Your task to perform on an android device: turn notification dots on Image 0: 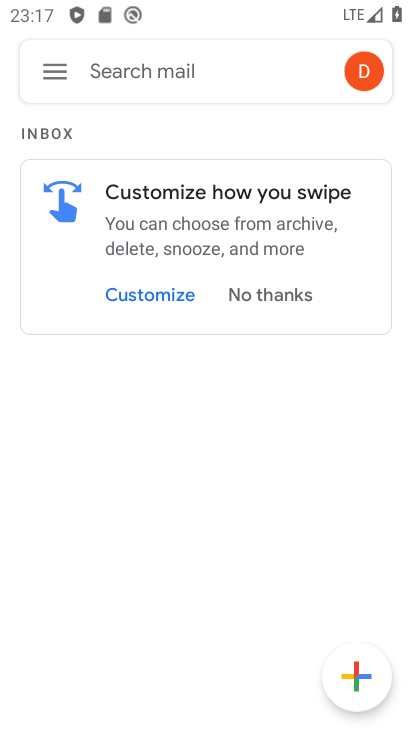
Step 0: press home button
Your task to perform on an android device: turn notification dots on Image 1: 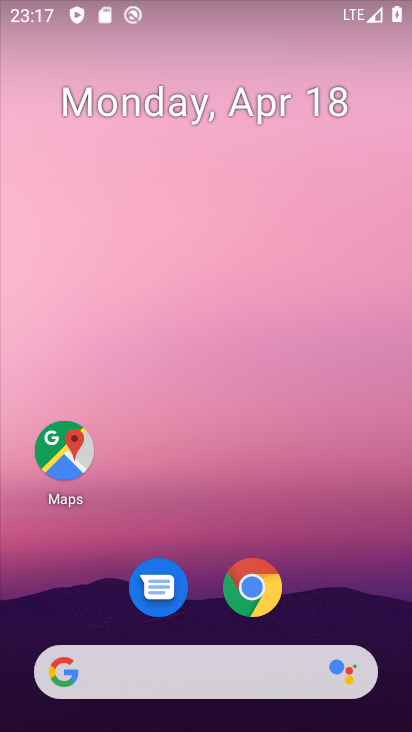
Step 1: drag from (346, 328) to (333, 146)
Your task to perform on an android device: turn notification dots on Image 2: 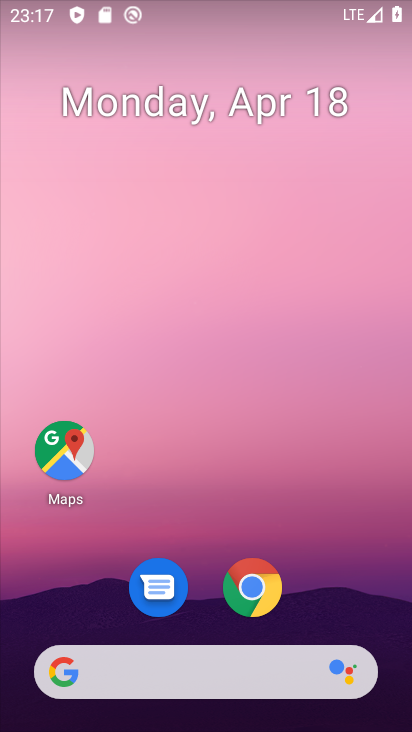
Step 2: drag from (321, 394) to (341, 155)
Your task to perform on an android device: turn notification dots on Image 3: 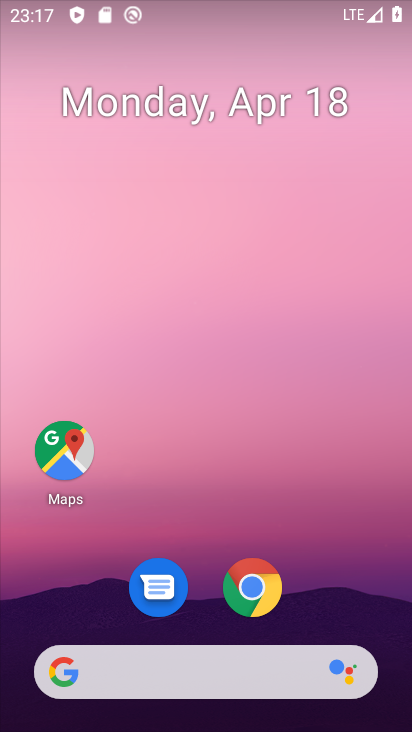
Step 3: drag from (369, 599) to (401, 110)
Your task to perform on an android device: turn notification dots on Image 4: 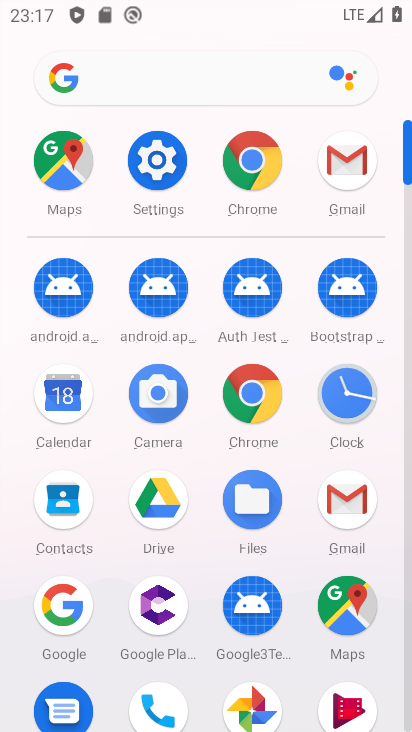
Step 4: click (150, 167)
Your task to perform on an android device: turn notification dots on Image 5: 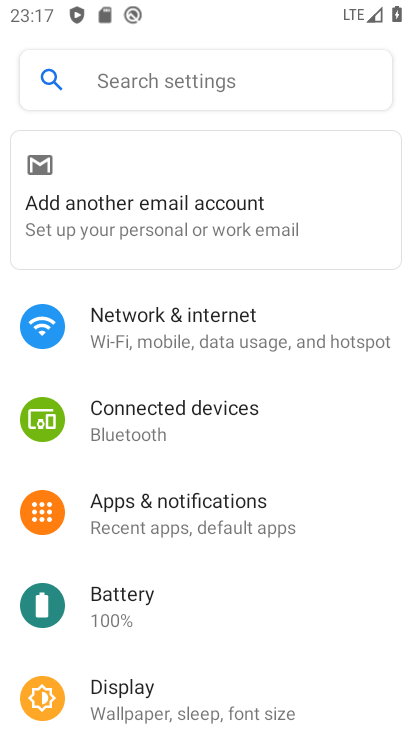
Step 5: click (221, 503)
Your task to perform on an android device: turn notification dots on Image 6: 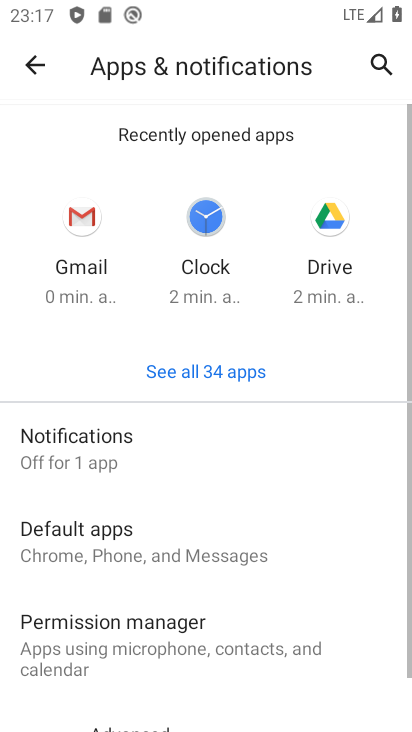
Step 6: click (87, 463)
Your task to perform on an android device: turn notification dots on Image 7: 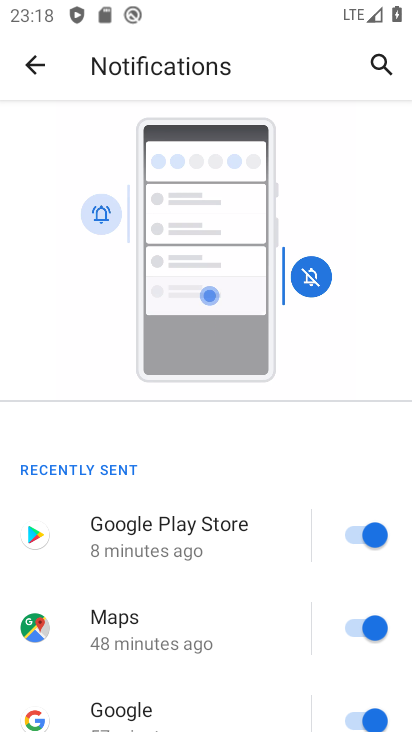
Step 7: drag from (252, 641) to (307, 211)
Your task to perform on an android device: turn notification dots on Image 8: 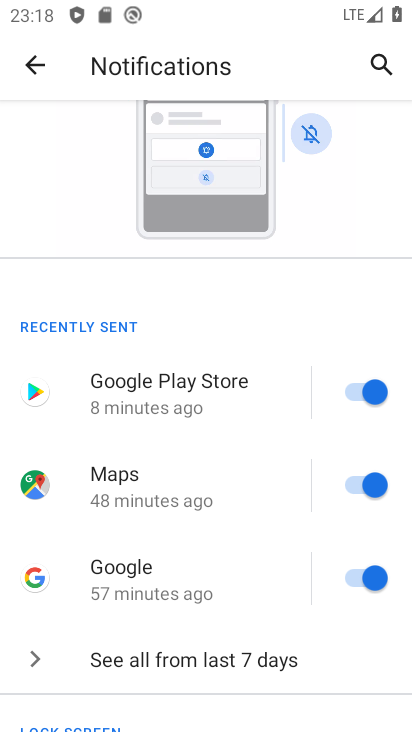
Step 8: drag from (260, 701) to (284, 190)
Your task to perform on an android device: turn notification dots on Image 9: 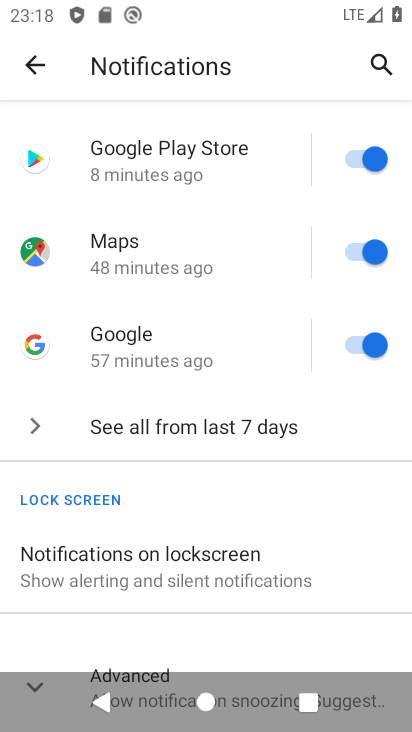
Step 9: click (207, 653)
Your task to perform on an android device: turn notification dots on Image 10: 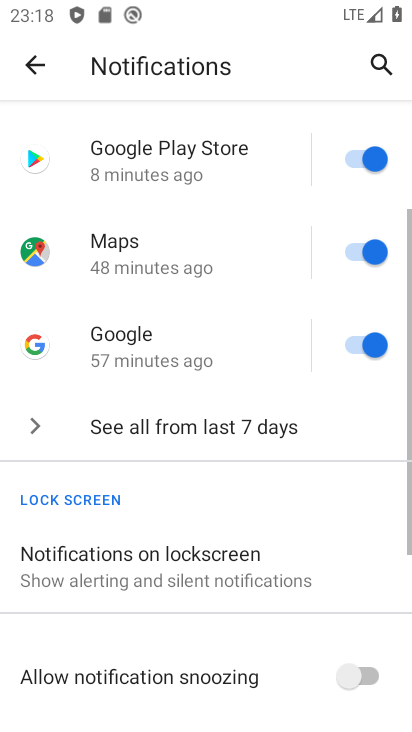
Step 10: task complete